Your task to perform on an android device: Search for the new Air Jordan 13 on Nike.com Image 0: 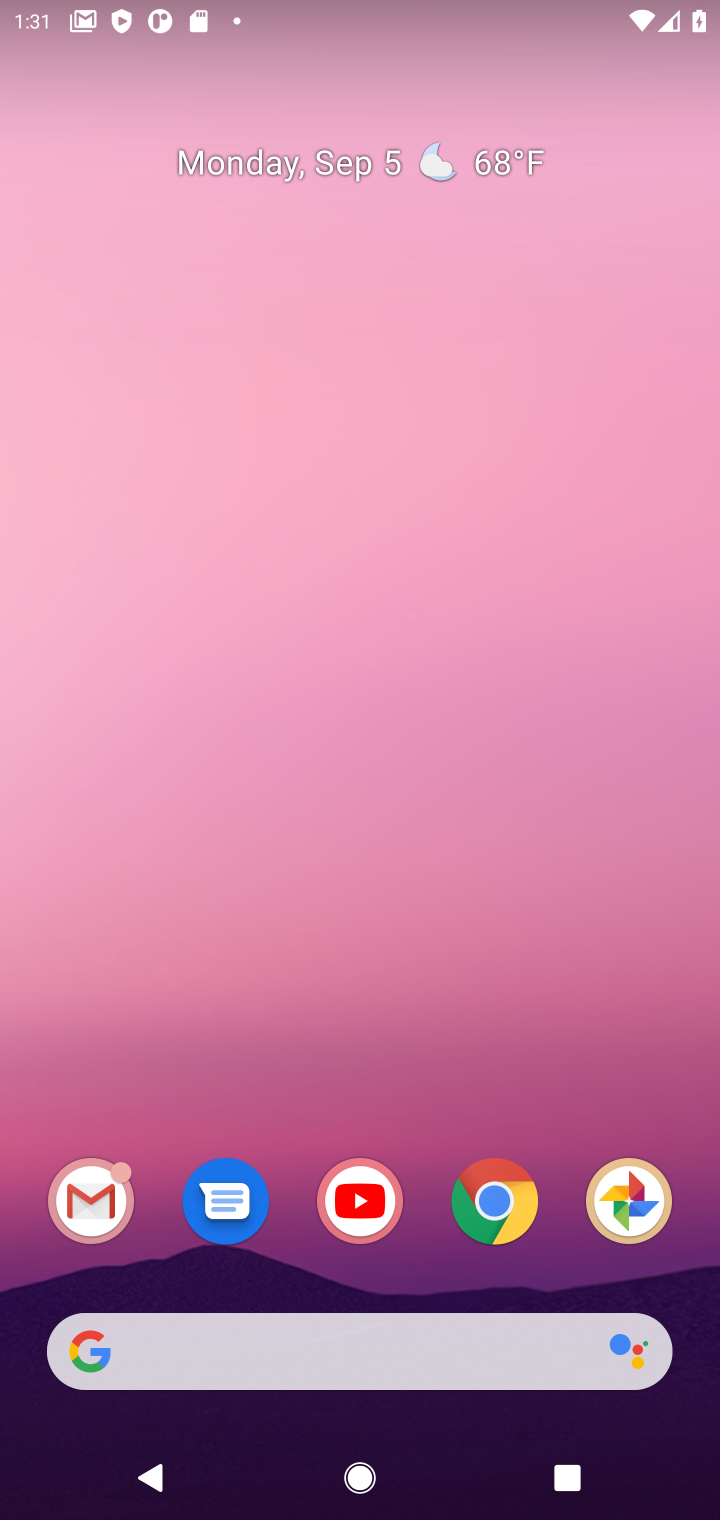
Step 0: click (481, 1211)
Your task to perform on an android device: Search for the new Air Jordan 13 on Nike.com Image 1: 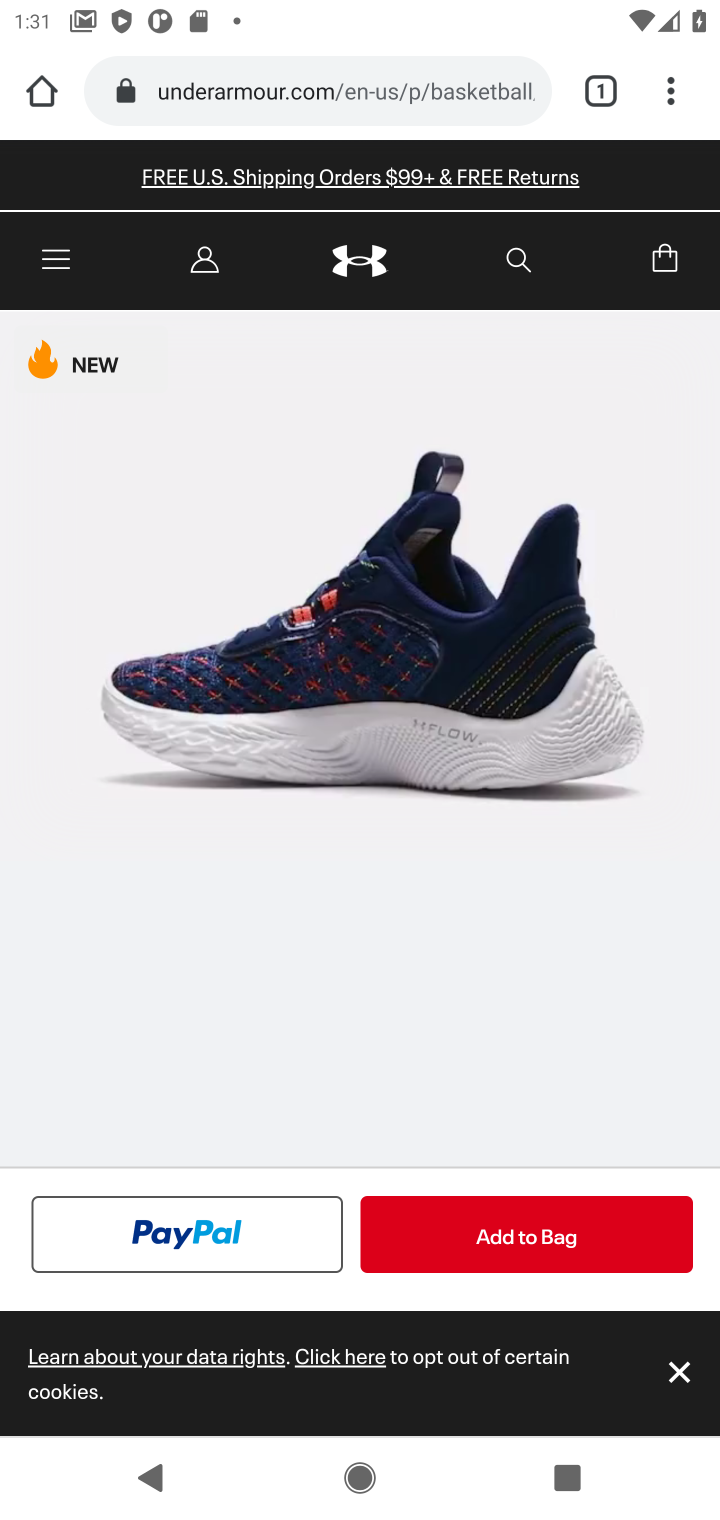
Step 1: click (341, 87)
Your task to perform on an android device: Search for the new Air Jordan 13 on Nike.com Image 2: 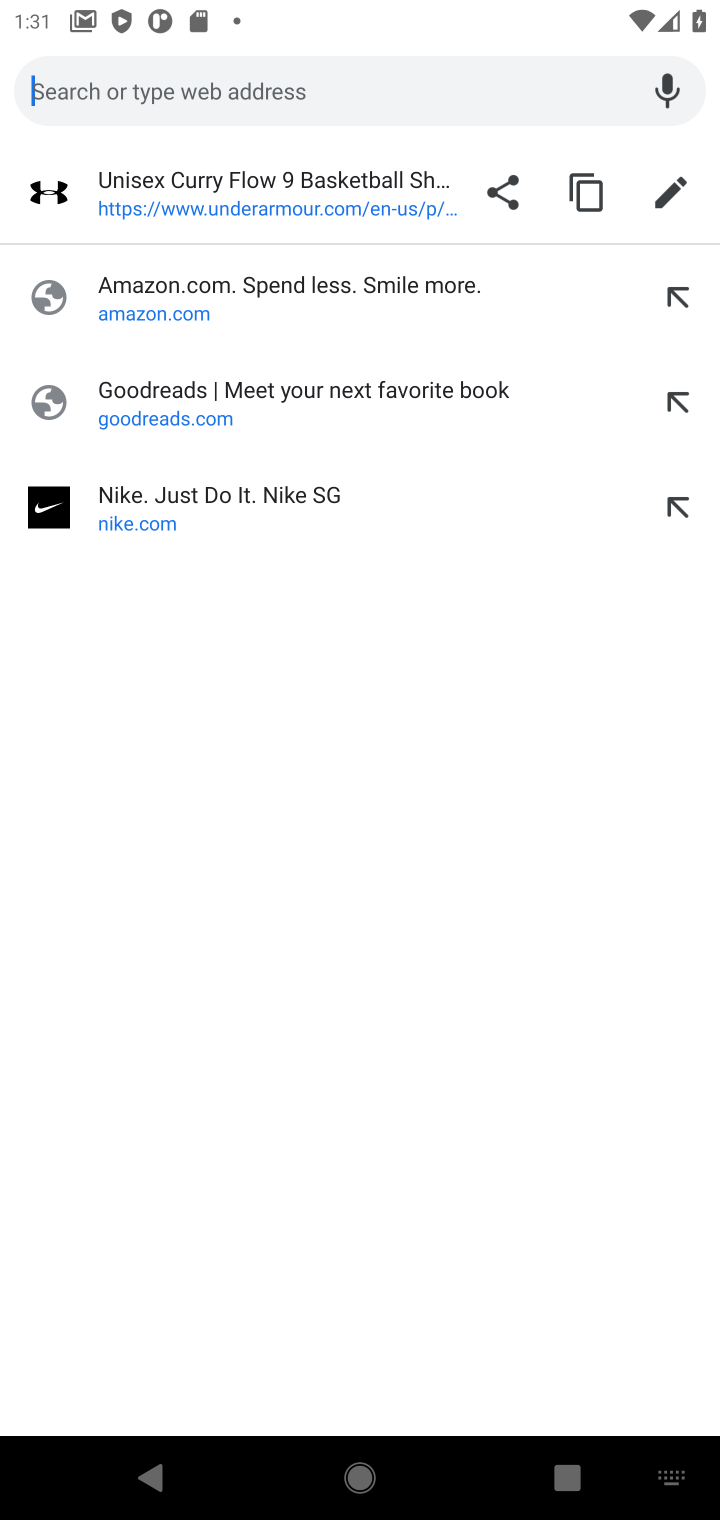
Step 2: type "Nike.com"
Your task to perform on an android device: Search for the new Air Jordan 13 on Nike.com Image 3: 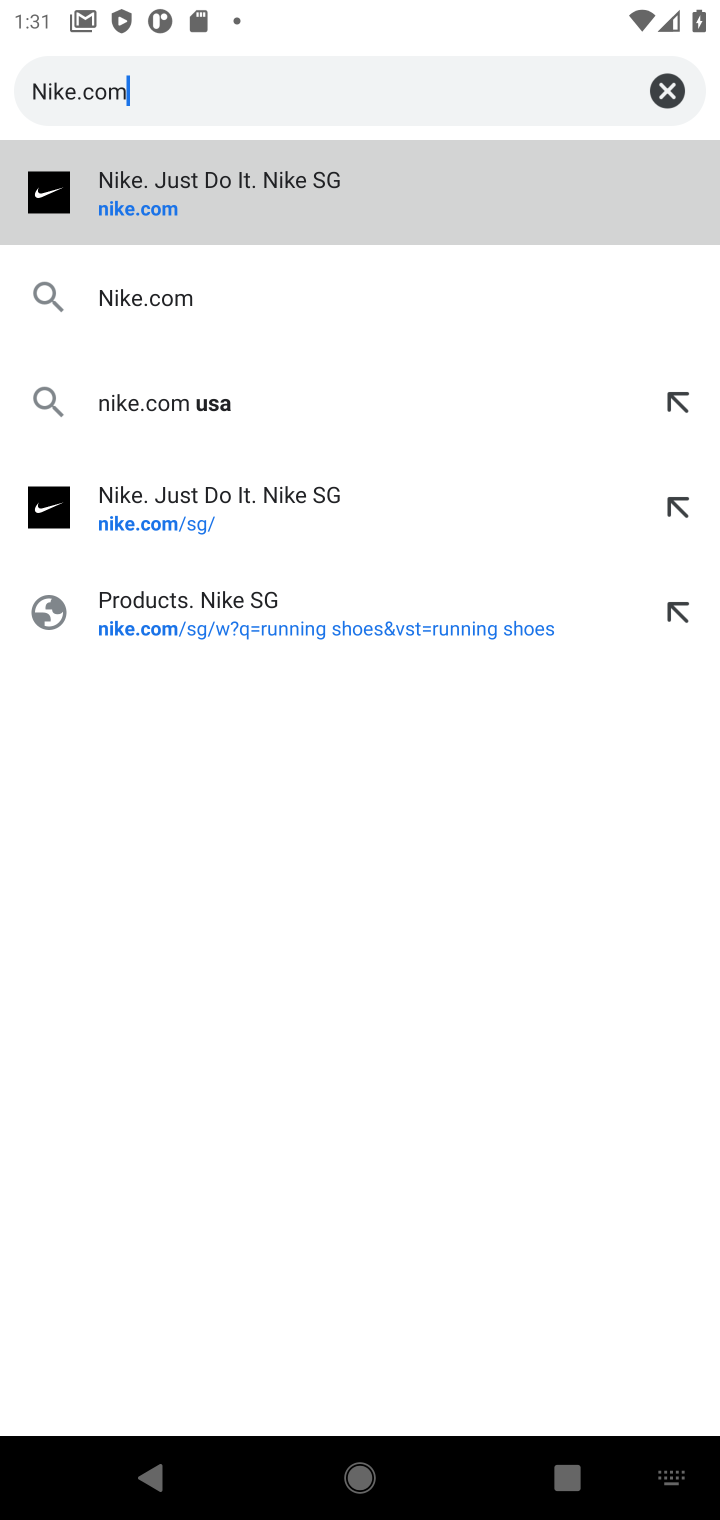
Step 3: press enter
Your task to perform on an android device: Search for the new Air Jordan 13 on Nike.com Image 4: 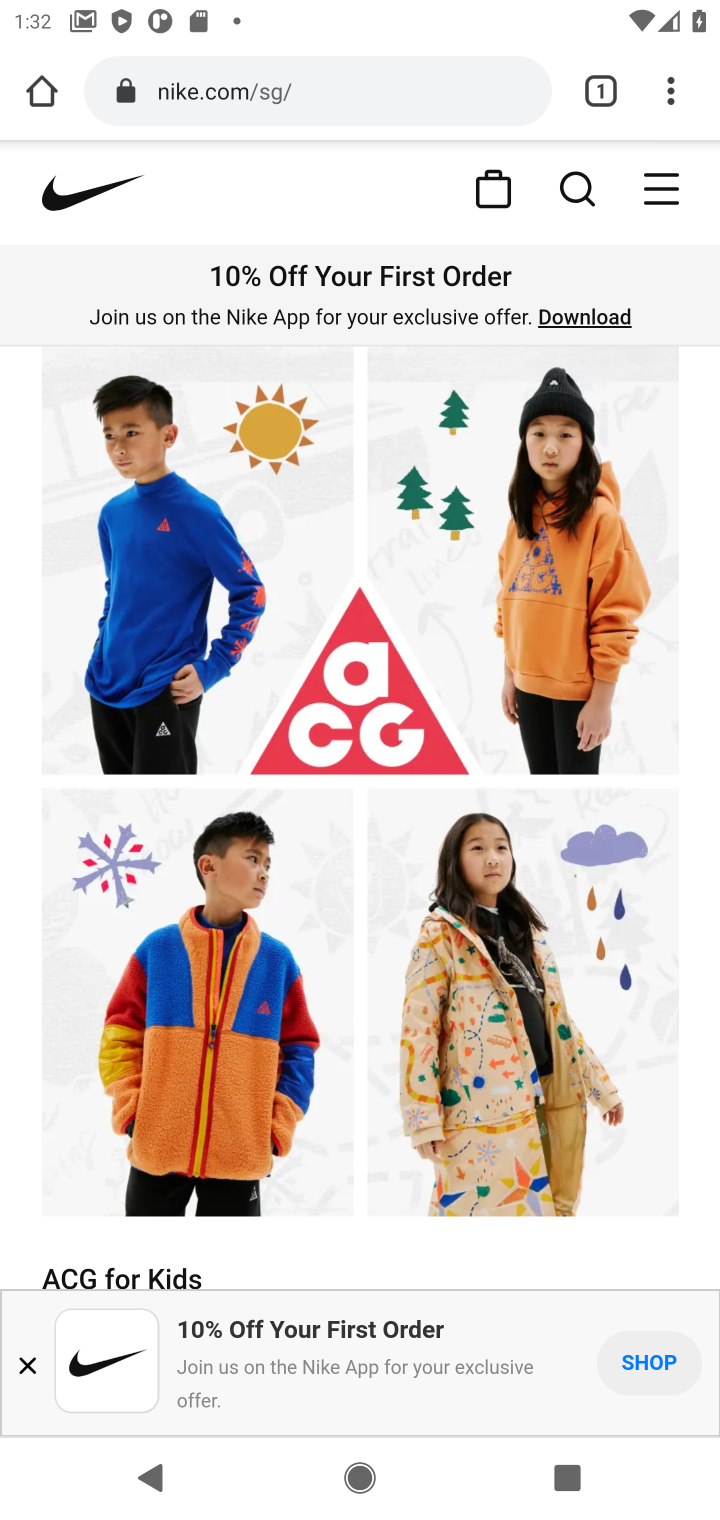
Step 4: click (574, 178)
Your task to perform on an android device: Search for the new Air Jordan 13 on Nike.com Image 5: 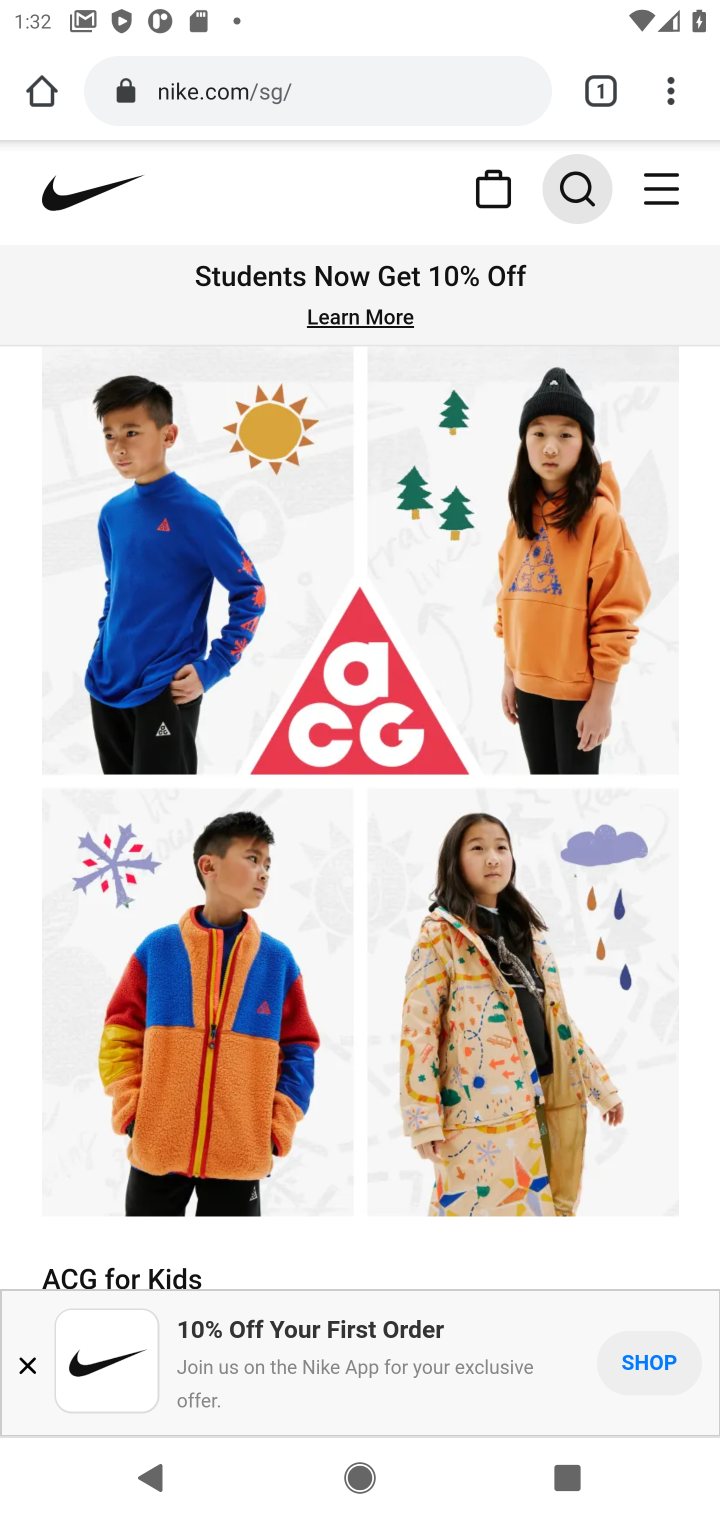
Step 5: click (555, 204)
Your task to perform on an android device: Search for the new Air Jordan 13 on Nike.com Image 6: 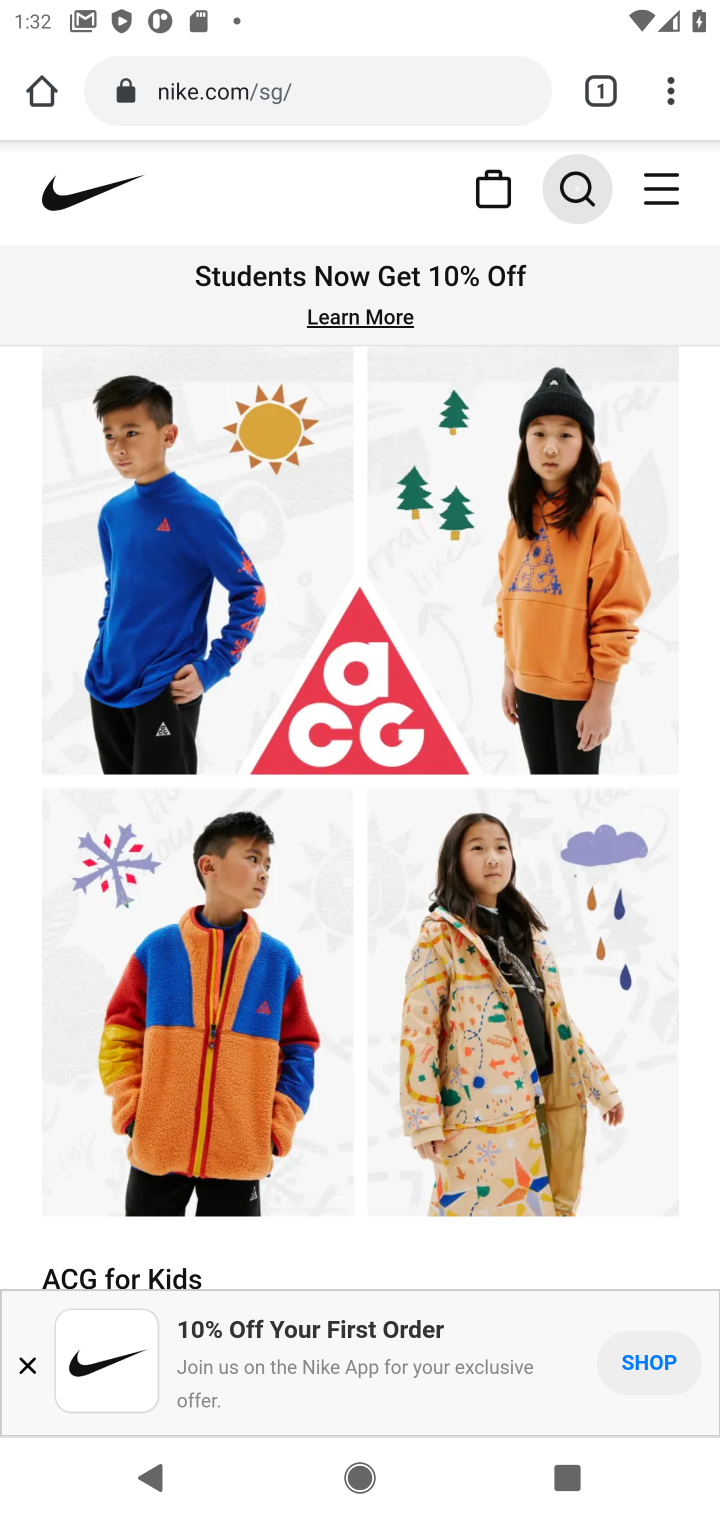
Step 6: click (550, 166)
Your task to perform on an android device: Search for the new Air Jordan 13 on Nike.com Image 7: 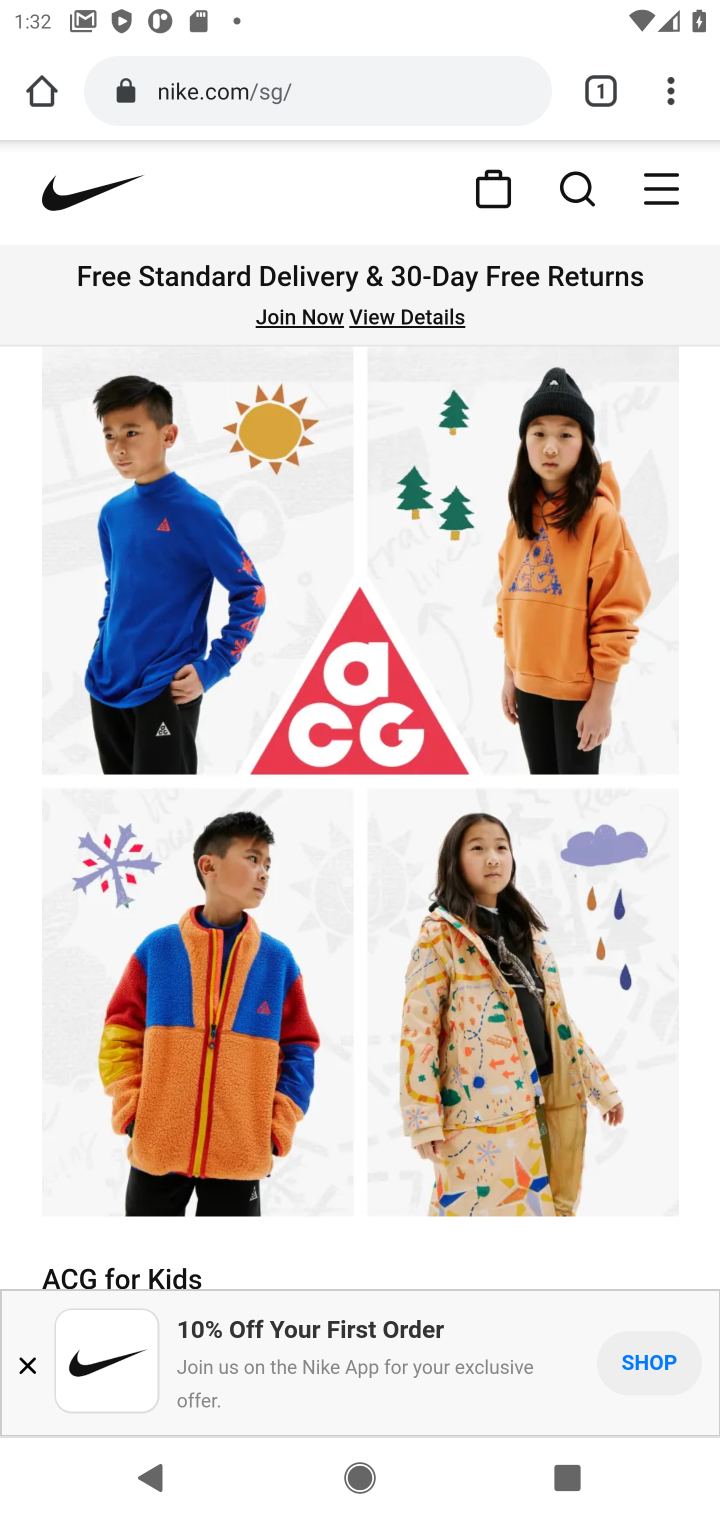
Step 7: click (553, 211)
Your task to perform on an android device: Search for the new Air Jordan 13 on Nike.com Image 8: 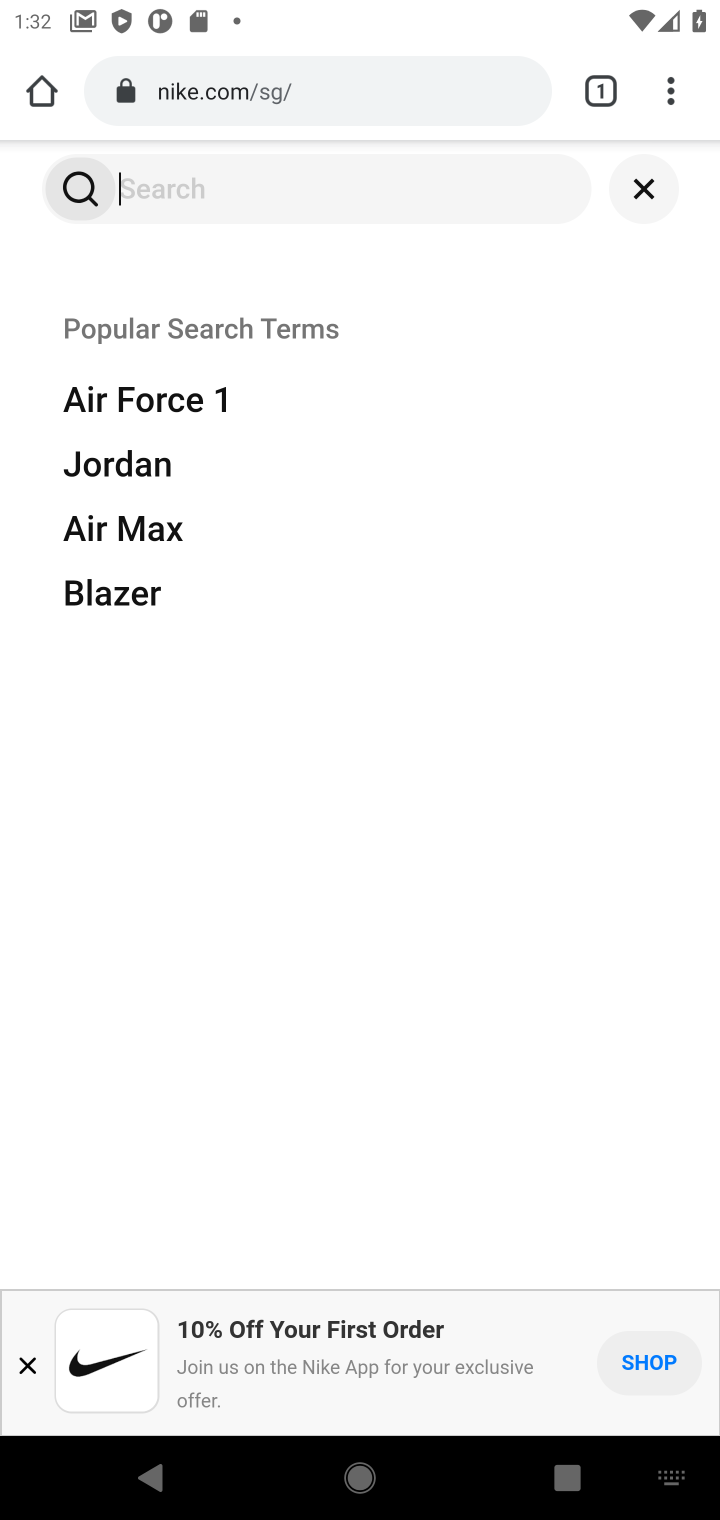
Step 8: click (247, 169)
Your task to perform on an android device: Search for the new Air Jordan 13 on Nike.com Image 9: 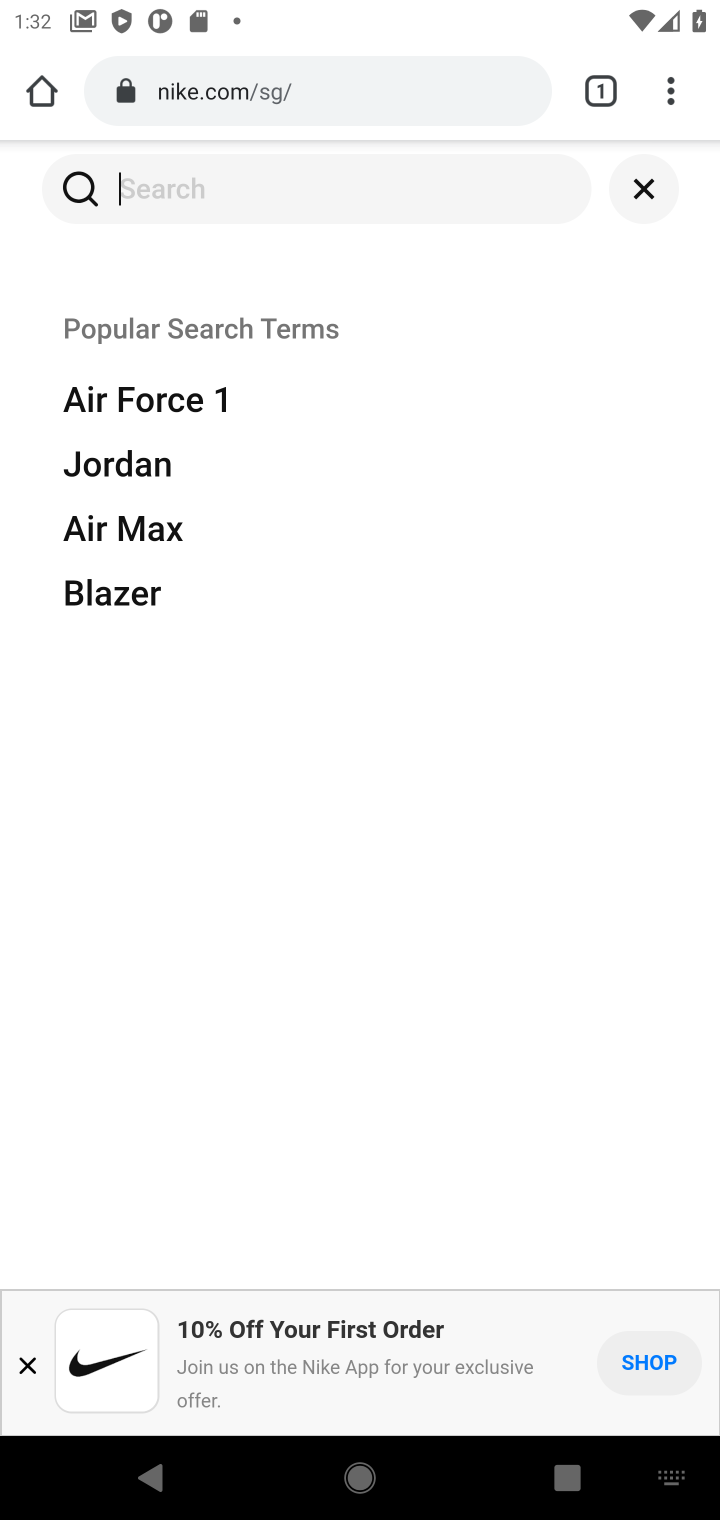
Step 9: press enter
Your task to perform on an android device: Search for the new Air Jordan 13 on Nike.com Image 10: 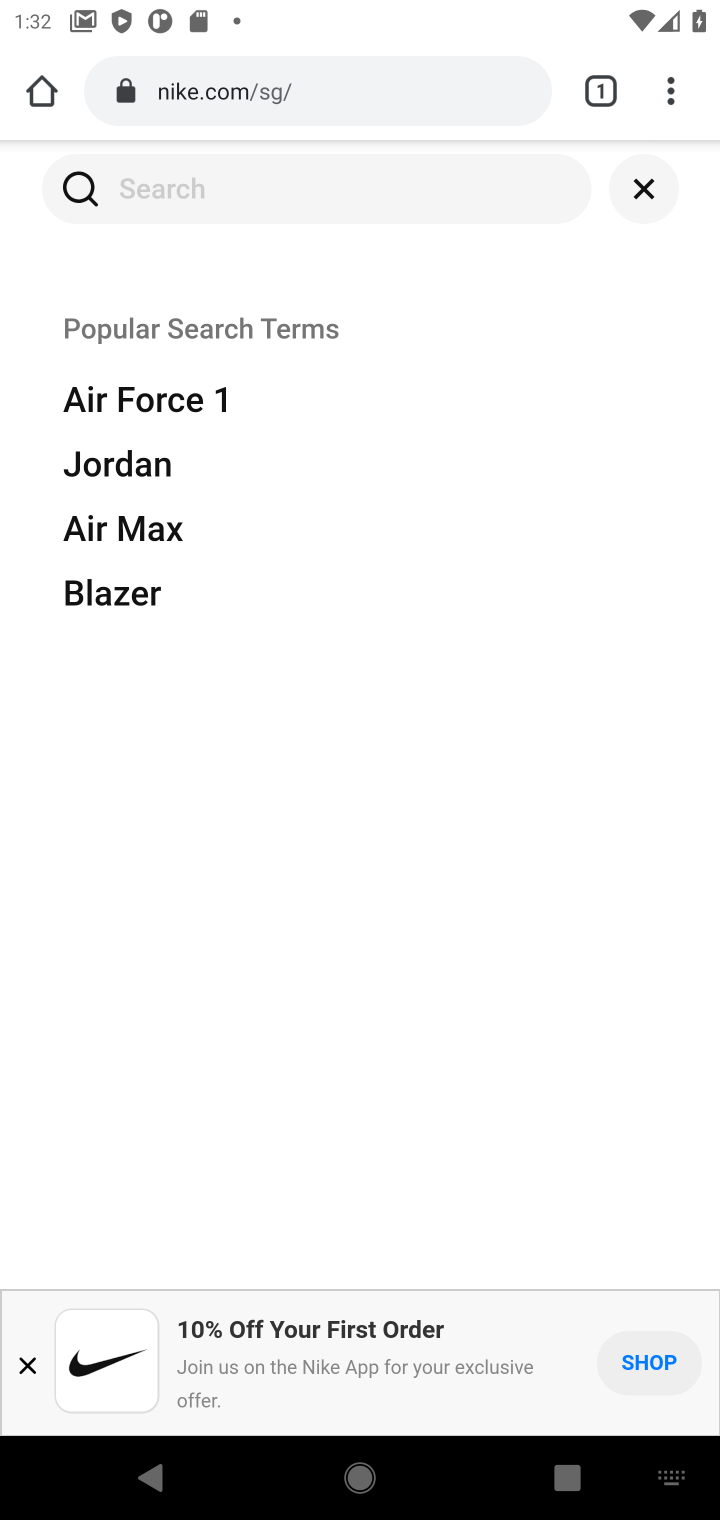
Step 10: type "new Air Jordan 13"
Your task to perform on an android device: Search for the new Air Jordan 13 on Nike.com Image 11: 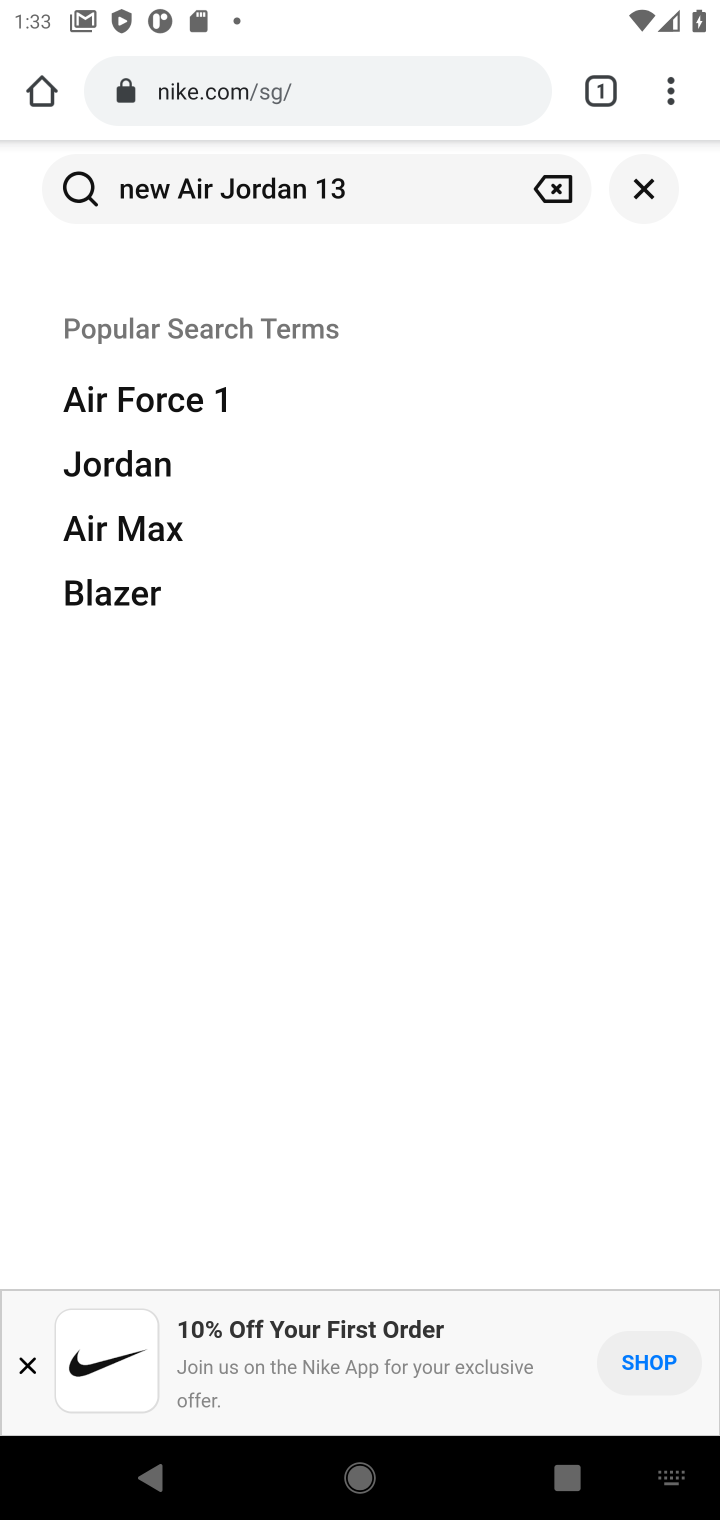
Step 11: click (69, 183)
Your task to perform on an android device: Search for the new Air Jordan 13 on Nike.com Image 12: 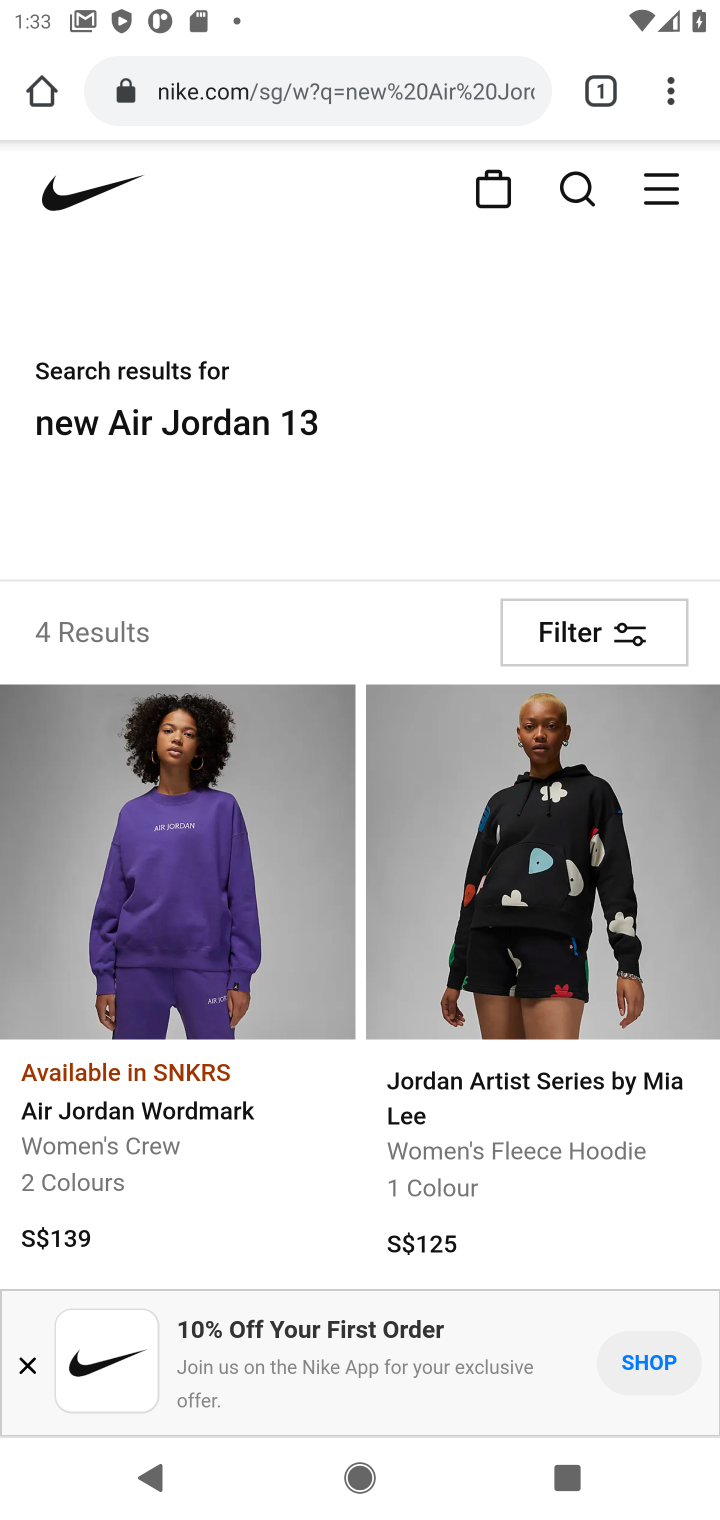
Step 12: drag from (411, 1228) to (580, 743)
Your task to perform on an android device: Search for the new Air Jordan 13 on Nike.com Image 13: 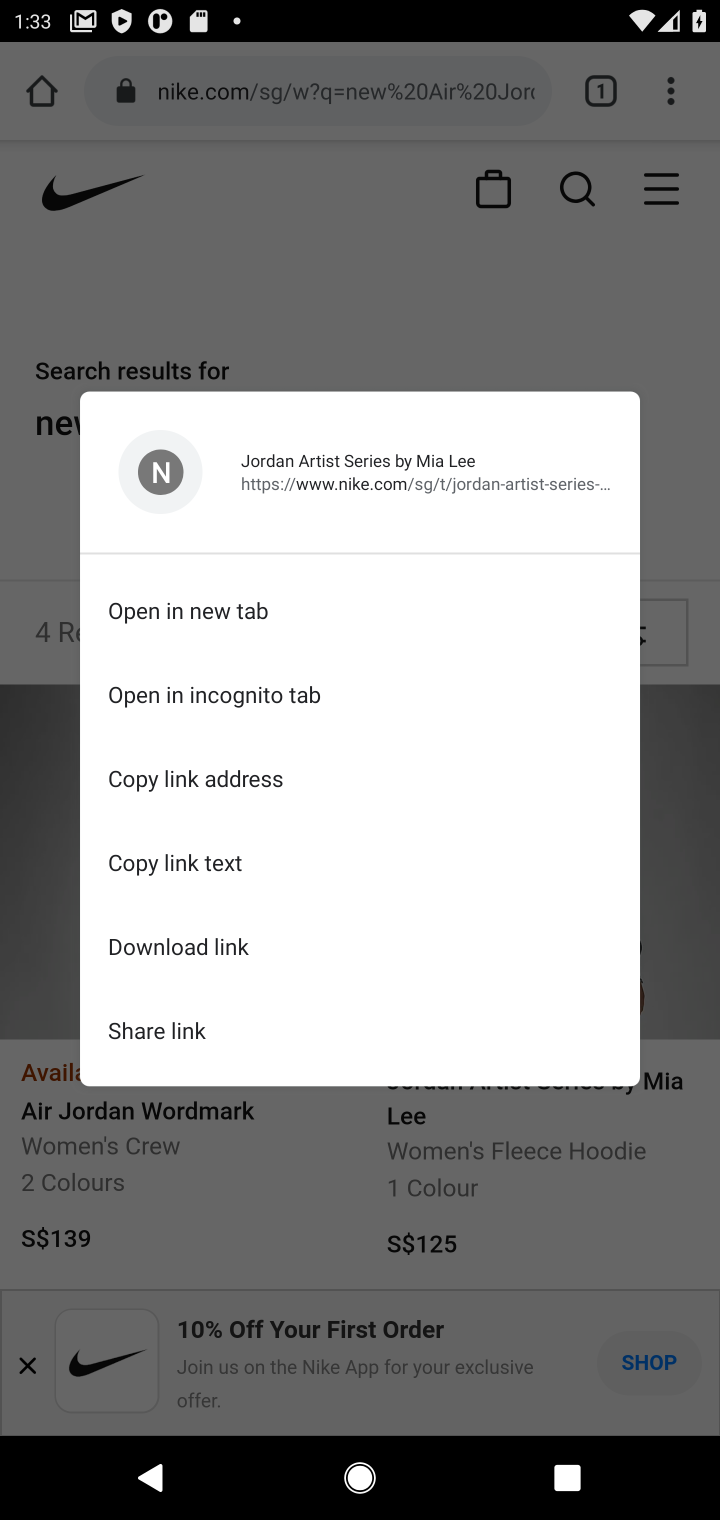
Step 13: click (694, 432)
Your task to perform on an android device: Search for the new Air Jordan 13 on Nike.com Image 14: 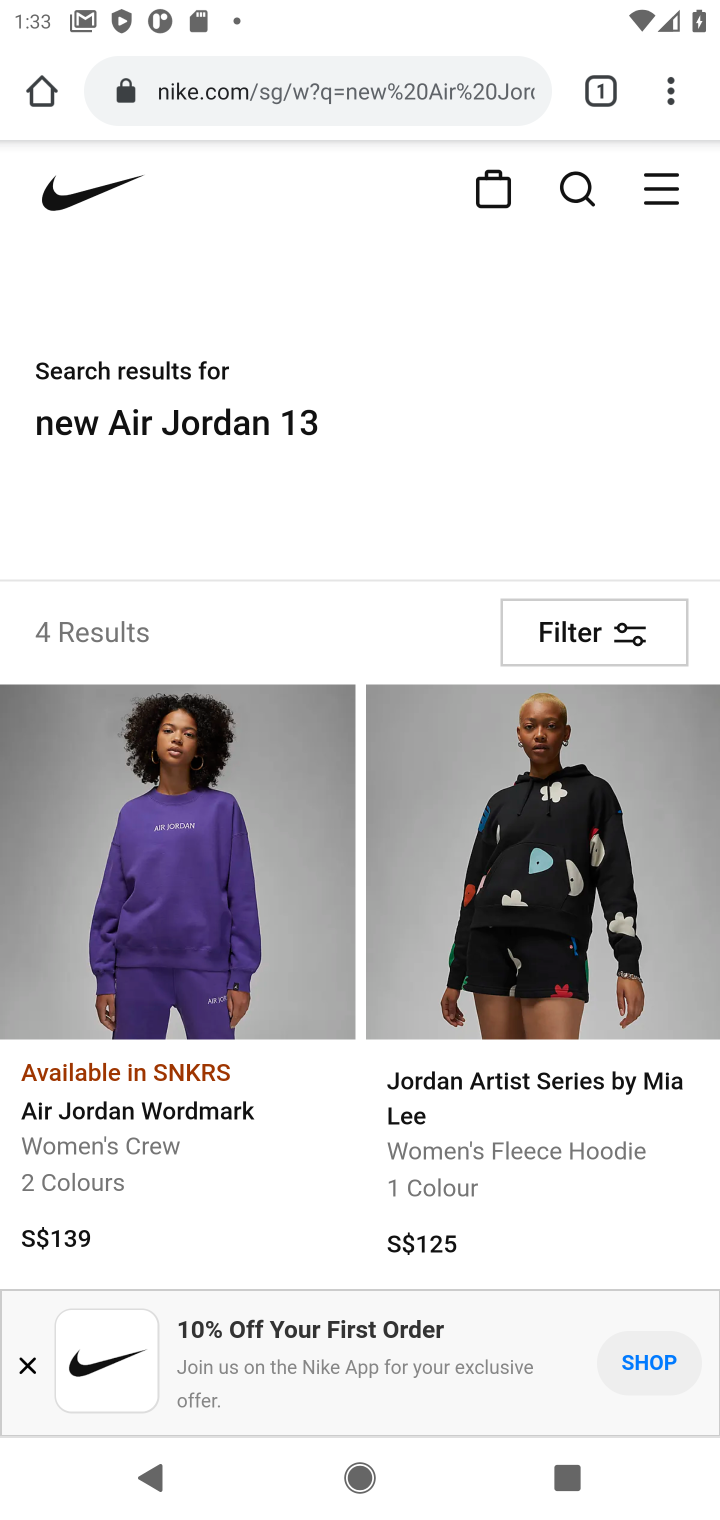
Step 14: drag from (505, 700) to (640, 390)
Your task to perform on an android device: Search for the new Air Jordan 13 on Nike.com Image 15: 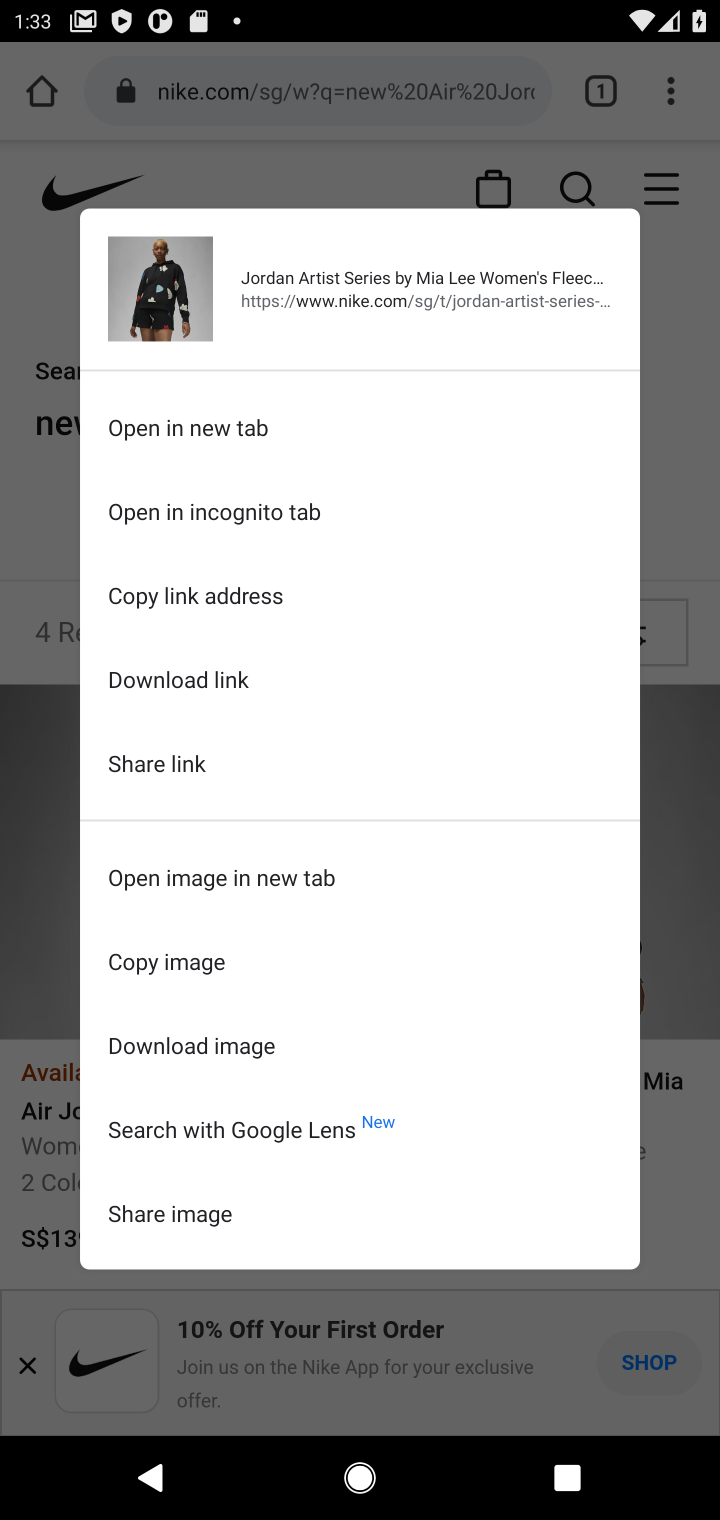
Step 15: click (699, 1227)
Your task to perform on an android device: Search for the new Air Jordan 13 on Nike.com Image 16: 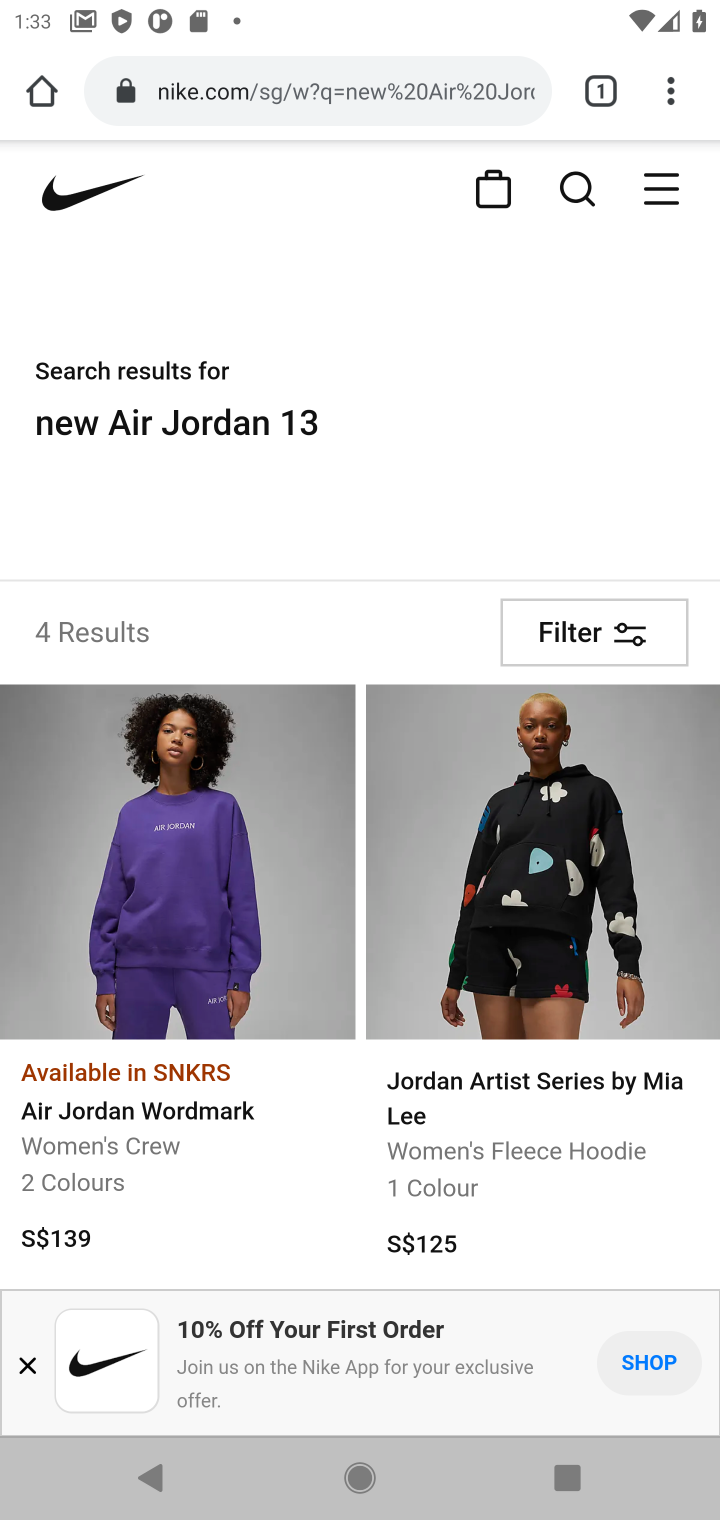
Step 16: task complete